Your task to perform on an android device: turn on javascript in the chrome app Image 0: 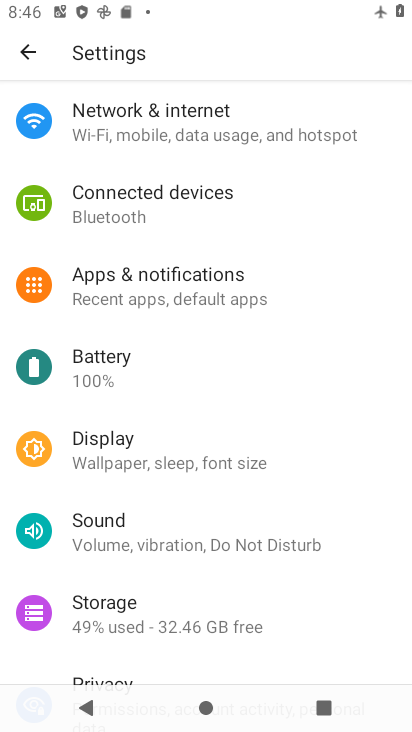
Step 0: press home button
Your task to perform on an android device: turn on javascript in the chrome app Image 1: 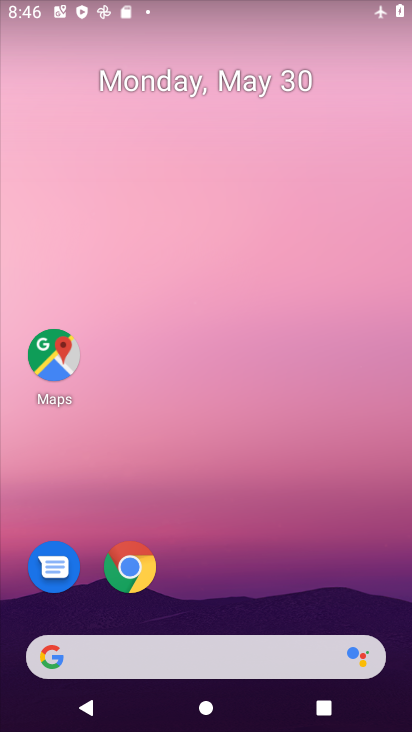
Step 1: click (130, 585)
Your task to perform on an android device: turn on javascript in the chrome app Image 2: 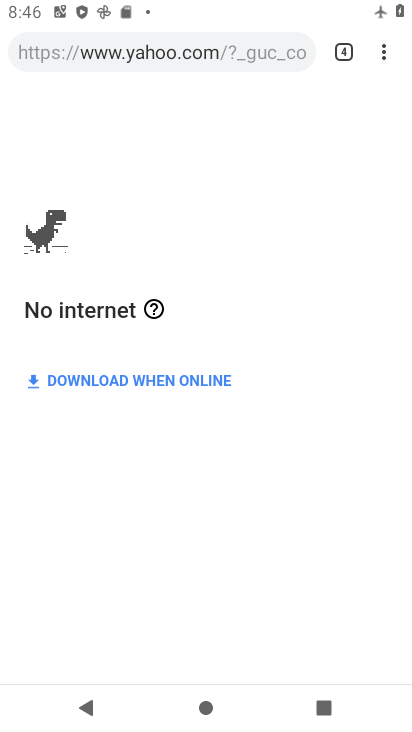
Step 2: press home button
Your task to perform on an android device: turn on javascript in the chrome app Image 3: 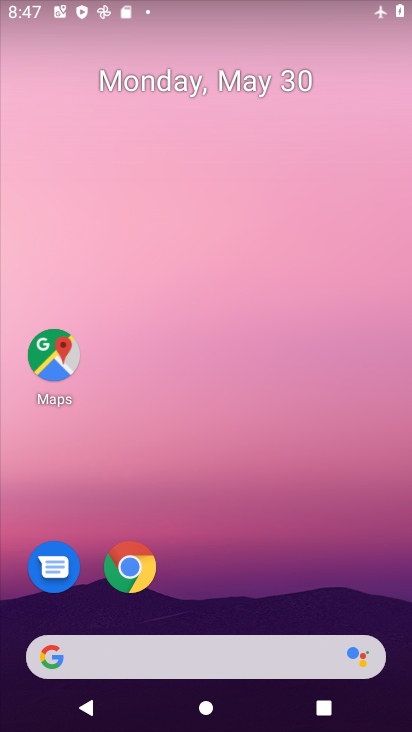
Step 3: drag from (257, 590) to (227, 52)
Your task to perform on an android device: turn on javascript in the chrome app Image 4: 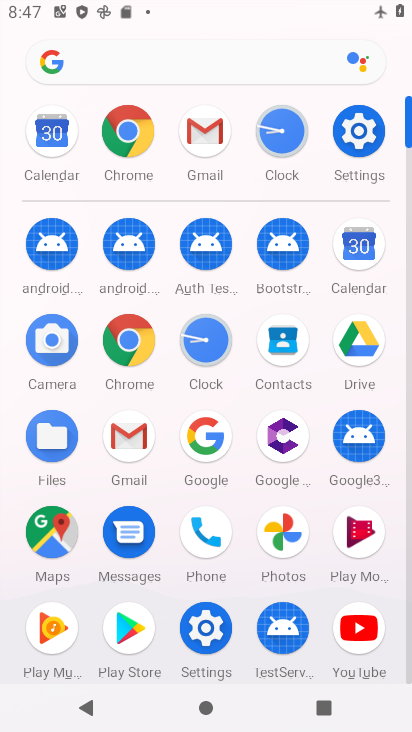
Step 4: click (112, 132)
Your task to perform on an android device: turn on javascript in the chrome app Image 5: 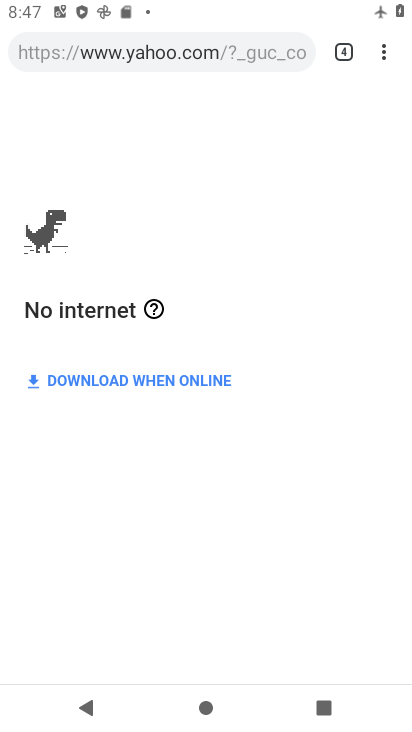
Step 5: click (379, 55)
Your task to perform on an android device: turn on javascript in the chrome app Image 6: 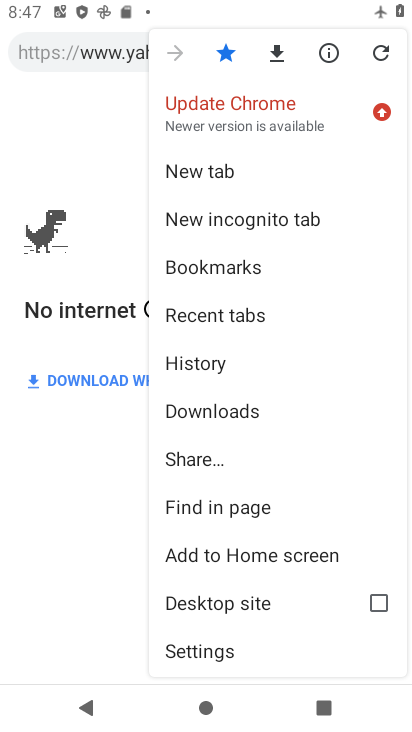
Step 6: click (219, 638)
Your task to perform on an android device: turn on javascript in the chrome app Image 7: 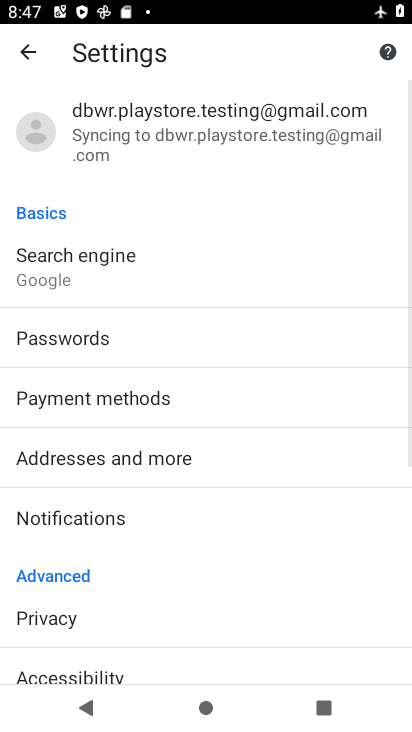
Step 7: drag from (237, 553) to (241, 196)
Your task to perform on an android device: turn on javascript in the chrome app Image 8: 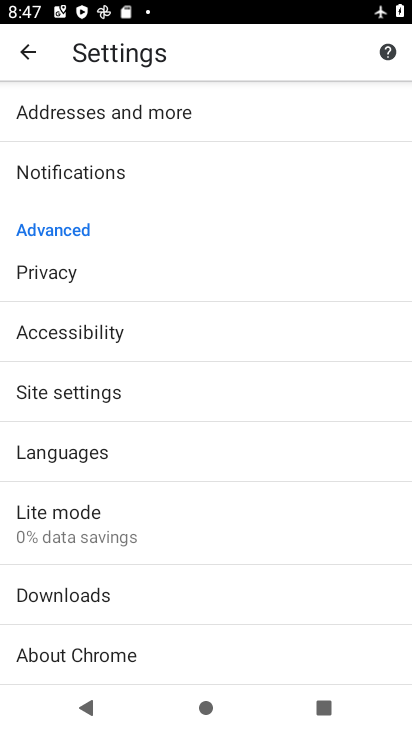
Step 8: click (162, 410)
Your task to perform on an android device: turn on javascript in the chrome app Image 9: 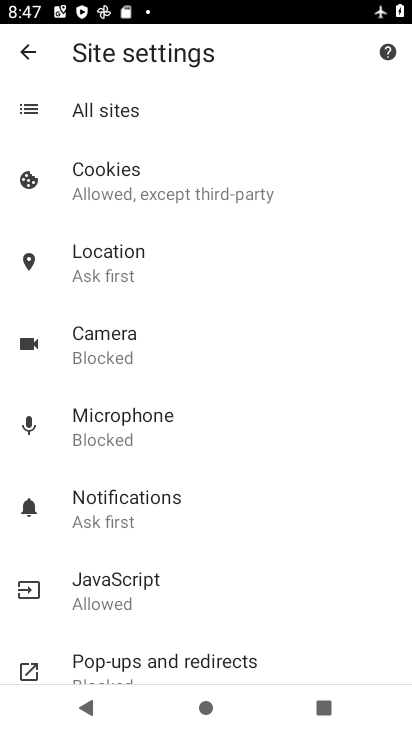
Step 9: click (155, 605)
Your task to perform on an android device: turn on javascript in the chrome app Image 10: 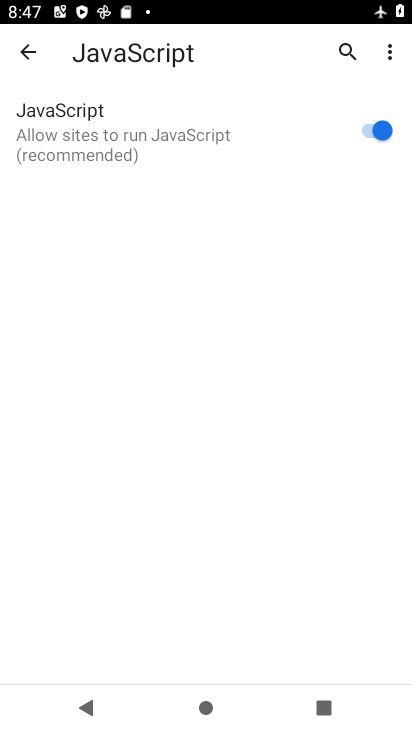
Step 10: click (368, 148)
Your task to perform on an android device: turn on javascript in the chrome app Image 11: 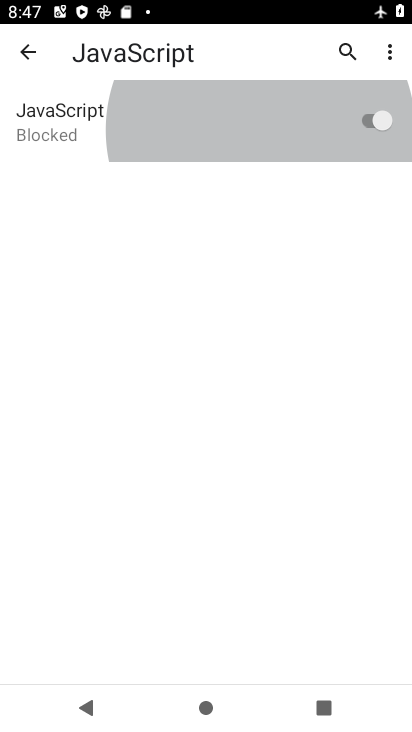
Step 11: click (368, 148)
Your task to perform on an android device: turn on javascript in the chrome app Image 12: 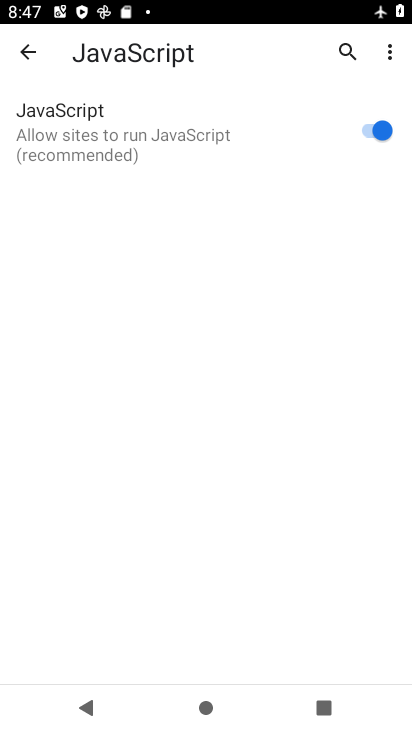
Step 12: task complete